Your task to perform on an android device: What's the weather going to be tomorrow? Image 0: 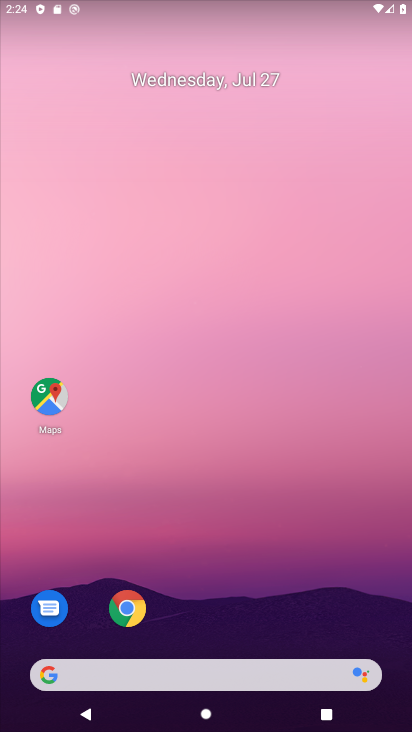
Step 0: click (207, 666)
Your task to perform on an android device: What's the weather going to be tomorrow? Image 1: 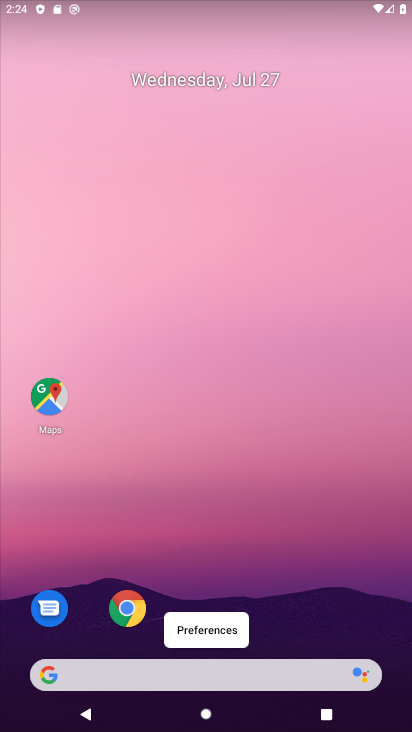
Step 1: click (215, 668)
Your task to perform on an android device: What's the weather going to be tomorrow? Image 2: 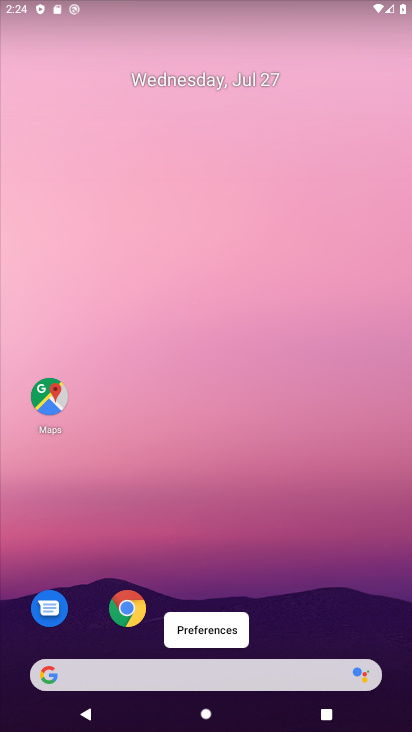
Step 2: click (243, 674)
Your task to perform on an android device: What's the weather going to be tomorrow? Image 3: 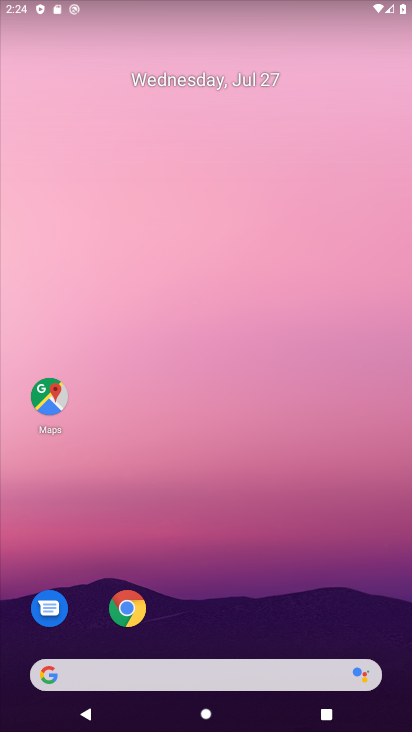
Step 3: drag from (303, 545) to (300, 10)
Your task to perform on an android device: What's the weather going to be tomorrow? Image 4: 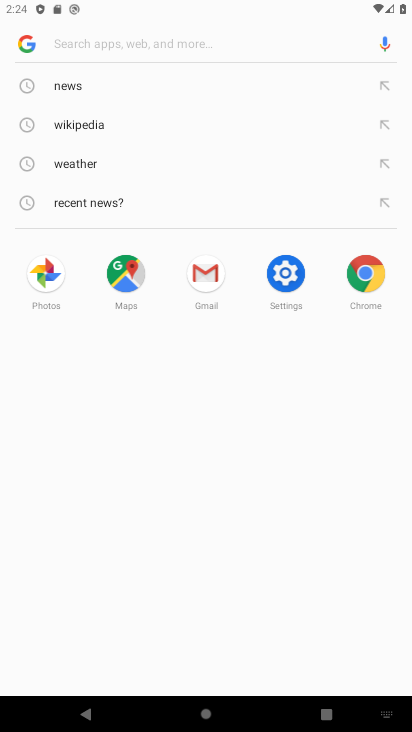
Step 4: click (109, 160)
Your task to perform on an android device: What's the weather going to be tomorrow? Image 5: 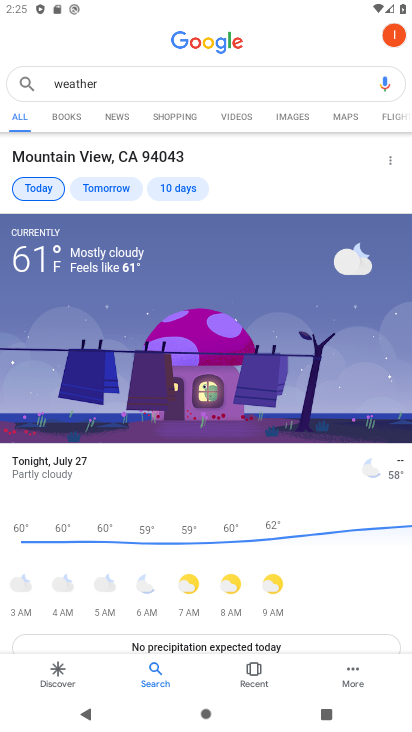
Step 5: click (113, 187)
Your task to perform on an android device: What's the weather going to be tomorrow? Image 6: 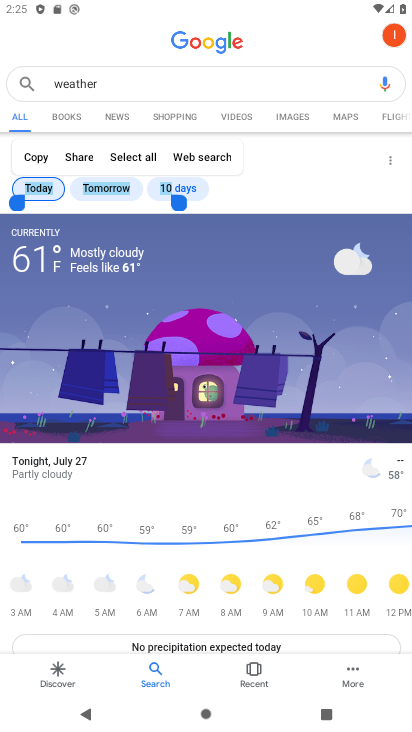
Step 6: click (114, 205)
Your task to perform on an android device: What's the weather going to be tomorrow? Image 7: 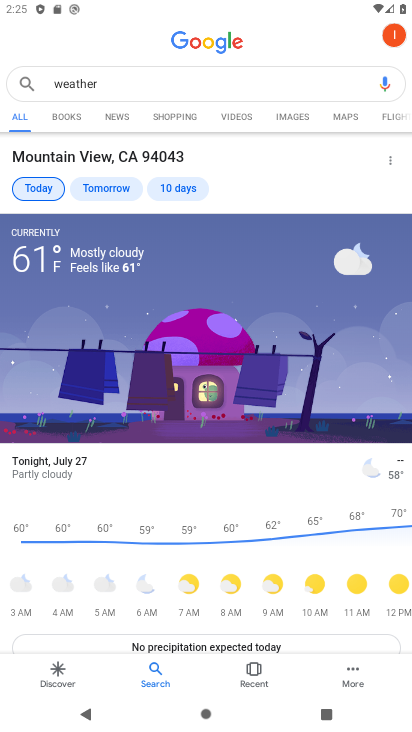
Step 7: click (95, 191)
Your task to perform on an android device: What's the weather going to be tomorrow? Image 8: 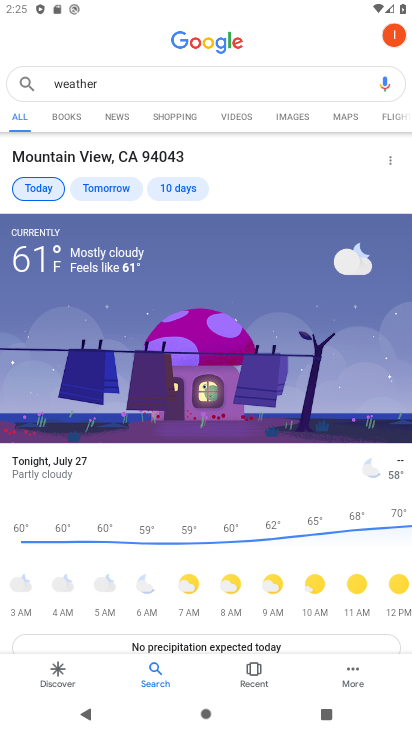
Step 8: click (95, 191)
Your task to perform on an android device: What's the weather going to be tomorrow? Image 9: 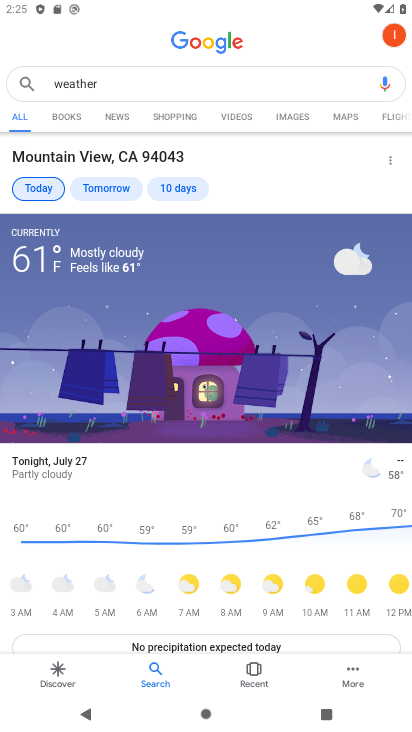
Step 9: task complete